Your task to perform on an android device: Is it going to rain tomorrow? Image 0: 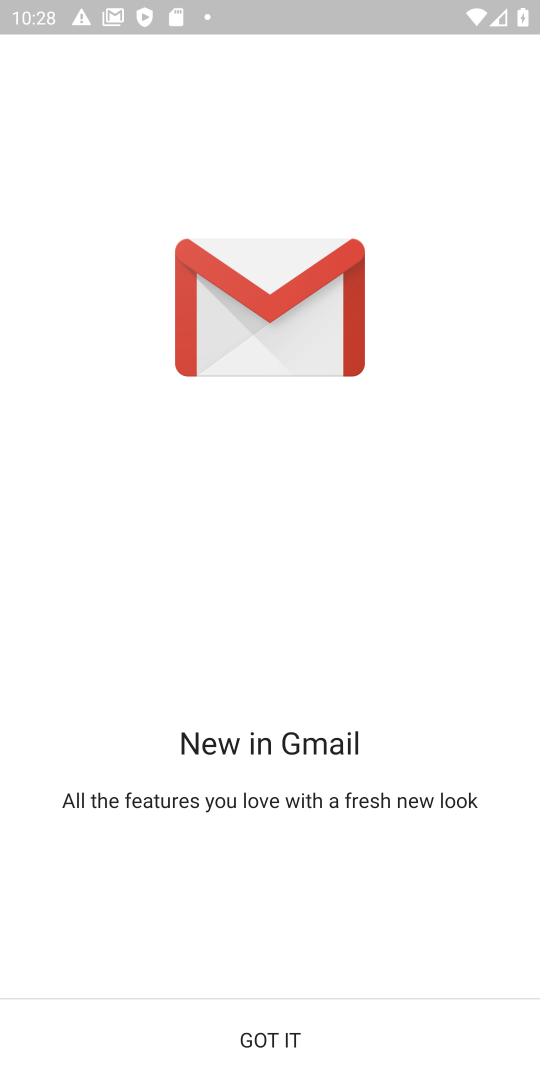
Step 0: press home button
Your task to perform on an android device: Is it going to rain tomorrow? Image 1: 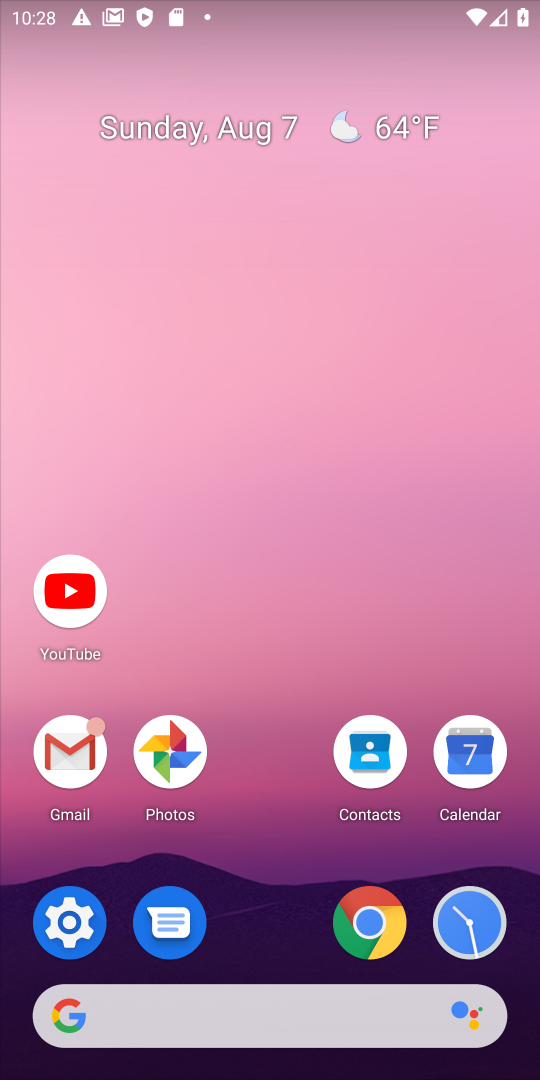
Step 1: click (281, 1029)
Your task to perform on an android device: Is it going to rain tomorrow? Image 2: 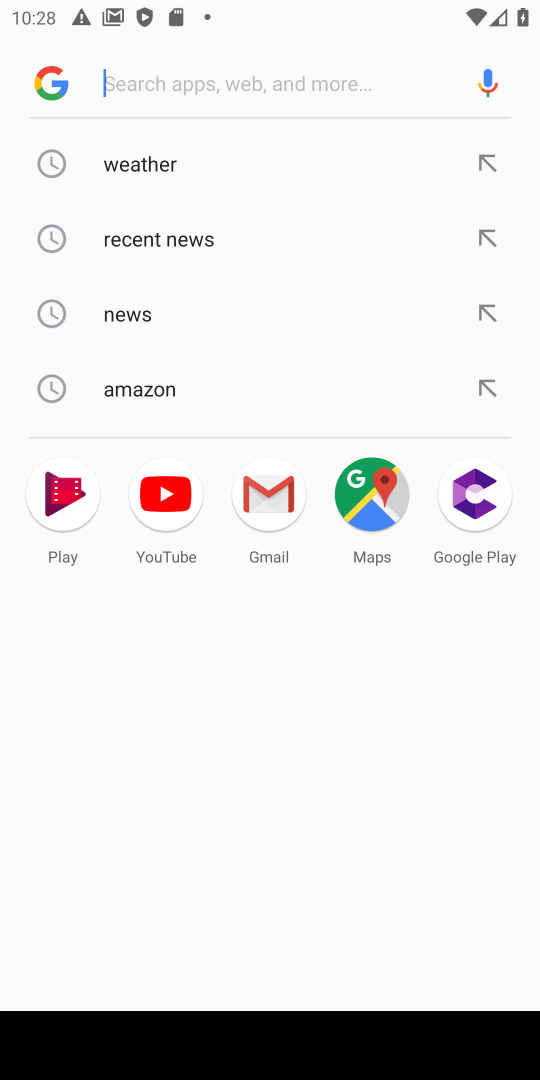
Step 2: type "Is it going to rain tomorrow?"
Your task to perform on an android device: Is it going to rain tomorrow? Image 3: 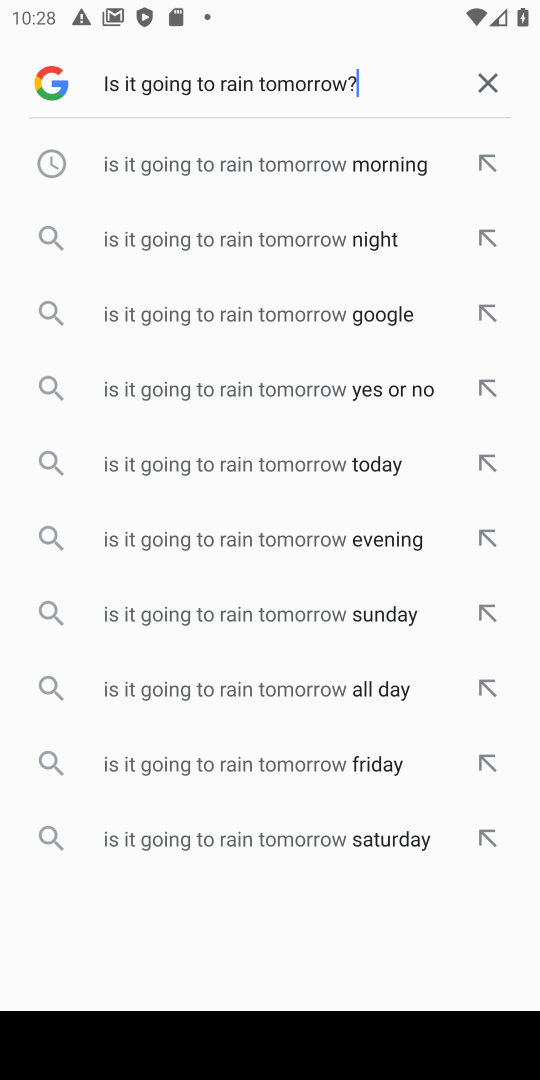
Step 3: click (262, 161)
Your task to perform on an android device: Is it going to rain tomorrow? Image 4: 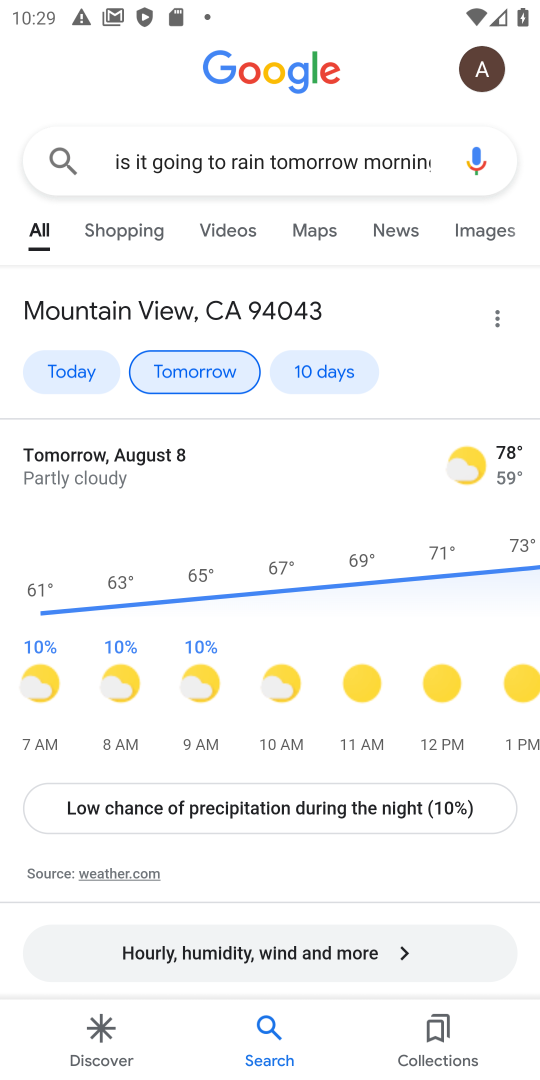
Step 4: task complete